Your task to perform on an android device: open app "Indeed Job Search" (install if not already installed) and enter user name: "quixotic@inbox.com" and password: "microphones" Image 0: 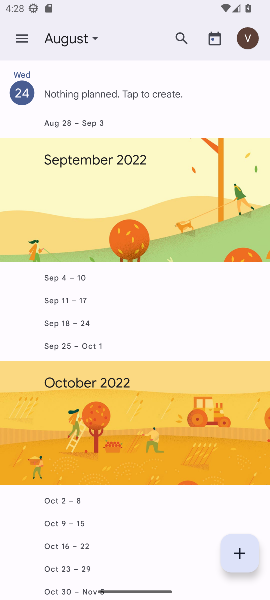
Step 0: press home button
Your task to perform on an android device: open app "Indeed Job Search" (install if not already installed) and enter user name: "quixotic@inbox.com" and password: "microphones" Image 1: 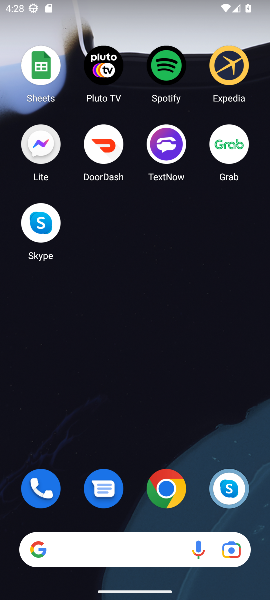
Step 1: drag from (126, 523) to (112, 23)
Your task to perform on an android device: open app "Indeed Job Search" (install if not already installed) and enter user name: "quixotic@inbox.com" and password: "microphones" Image 2: 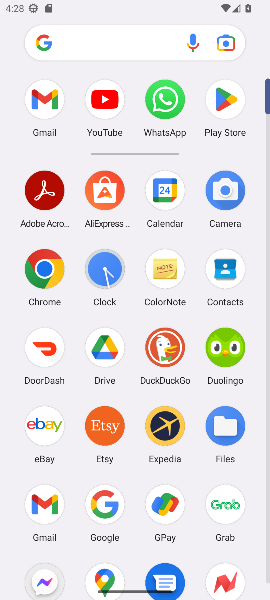
Step 2: click (213, 111)
Your task to perform on an android device: open app "Indeed Job Search" (install if not already installed) and enter user name: "quixotic@inbox.com" and password: "microphones" Image 3: 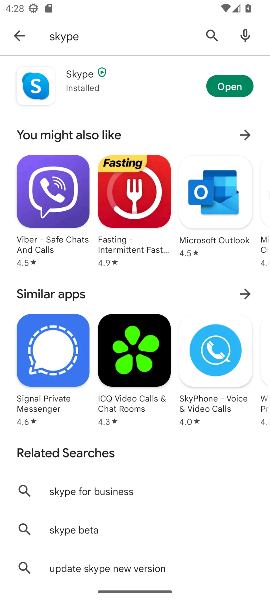
Step 3: click (220, 47)
Your task to perform on an android device: open app "Indeed Job Search" (install if not already installed) and enter user name: "quixotic@inbox.com" and password: "microphones" Image 4: 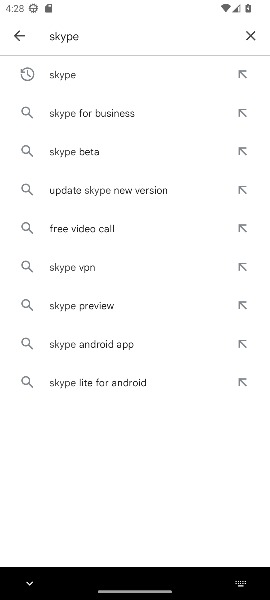
Step 4: click (246, 30)
Your task to perform on an android device: open app "Indeed Job Search" (install if not already installed) and enter user name: "quixotic@inbox.com" and password: "microphones" Image 5: 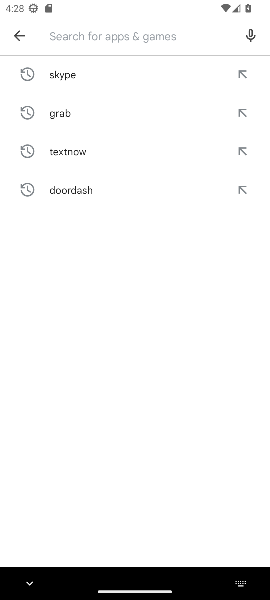
Step 5: type "indeed"
Your task to perform on an android device: open app "Indeed Job Search" (install if not already installed) and enter user name: "quixotic@inbox.com" and password: "microphones" Image 6: 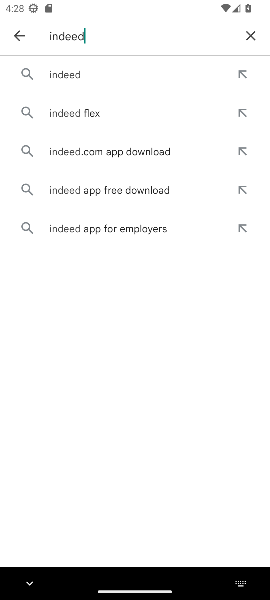
Step 6: click (119, 73)
Your task to perform on an android device: open app "Indeed Job Search" (install if not already installed) and enter user name: "quixotic@inbox.com" and password: "microphones" Image 7: 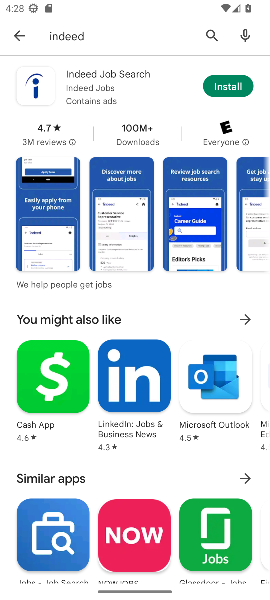
Step 7: click (219, 78)
Your task to perform on an android device: open app "Indeed Job Search" (install if not already installed) and enter user name: "quixotic@inbox.com" and password: "microphones" Image 8: 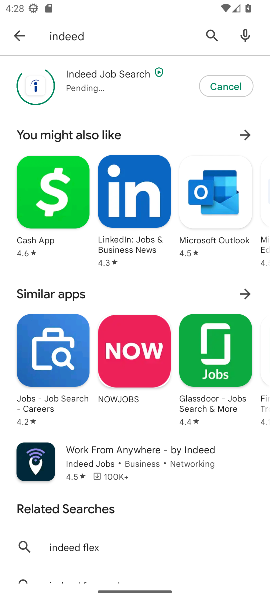
Step 8: task complete